Your task to perform on an android device: Clear the shopping cart on ebay. Image 0: 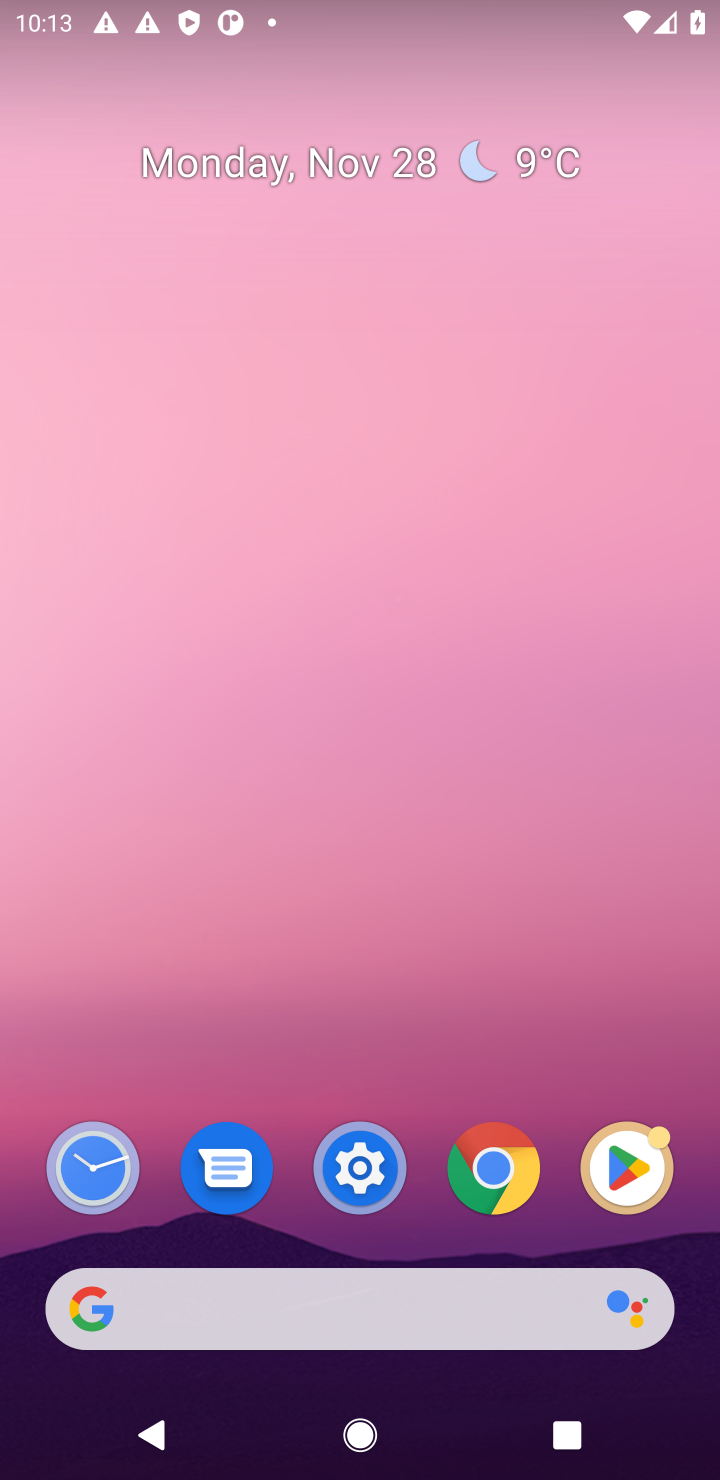
Step 0: click (390, 1319)
Your task to perform on an android device: Clear the shopping cart on ebay. Image 1: 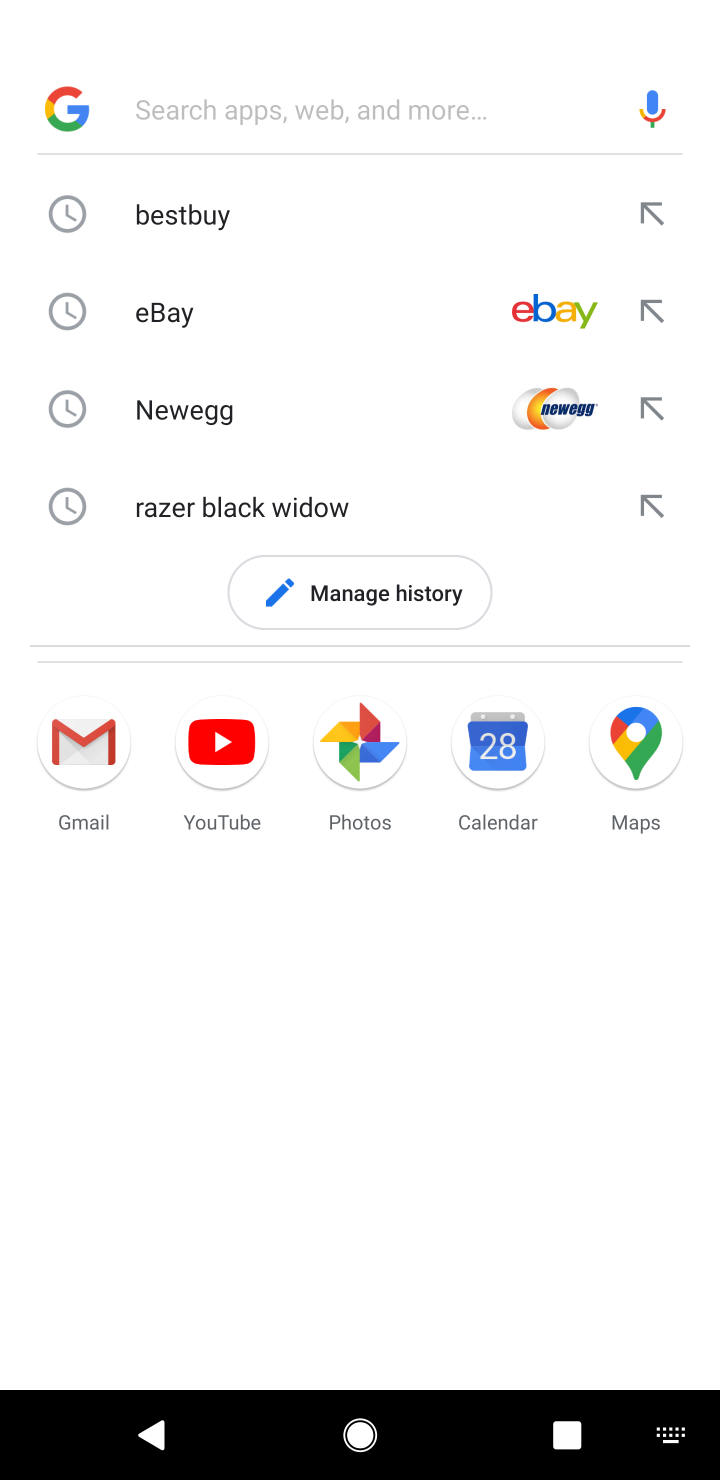
Step 1: type "ebay.com"
Your task to perform on an android device: Clear the shopping cart on ebay. Image 2: 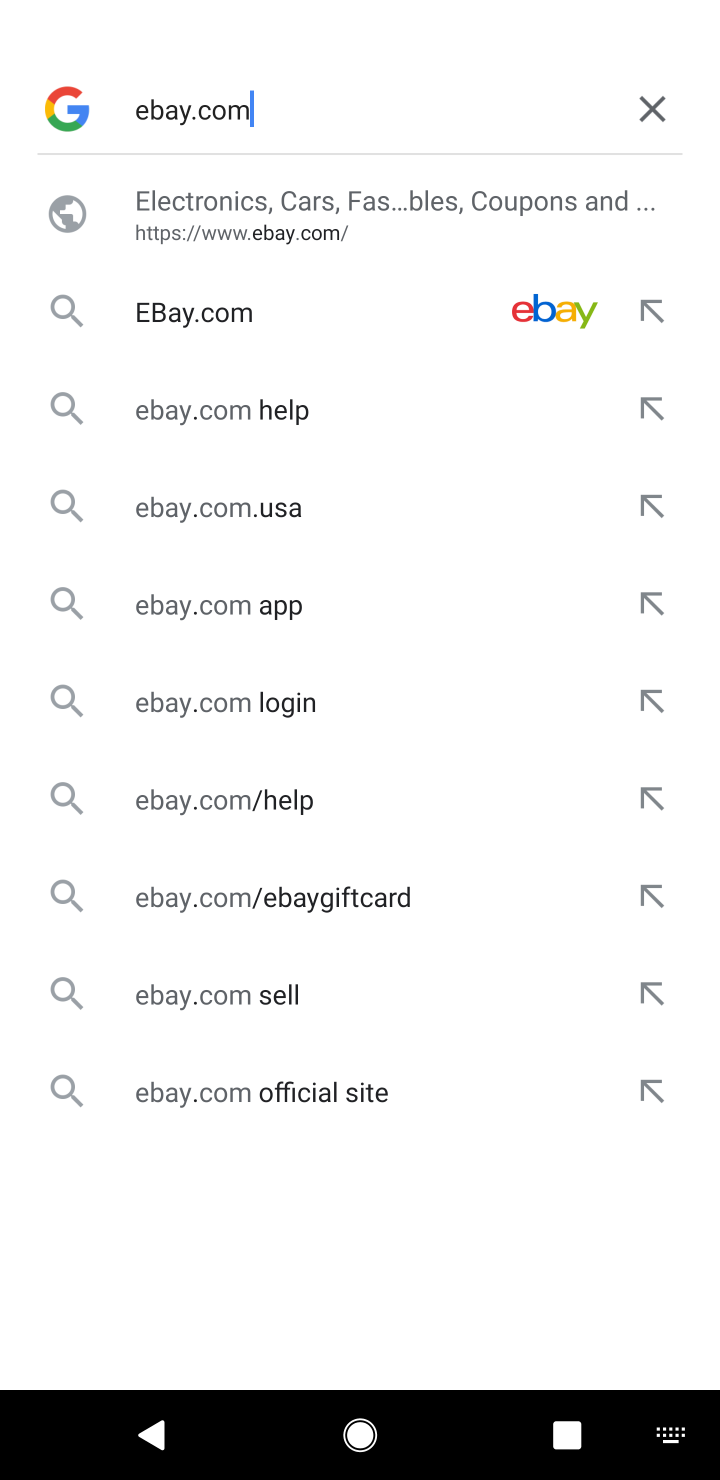
Step 2: click (236, 328)
Your task to perform on an android device: Clear the shopping cart on ebay. Image 3: 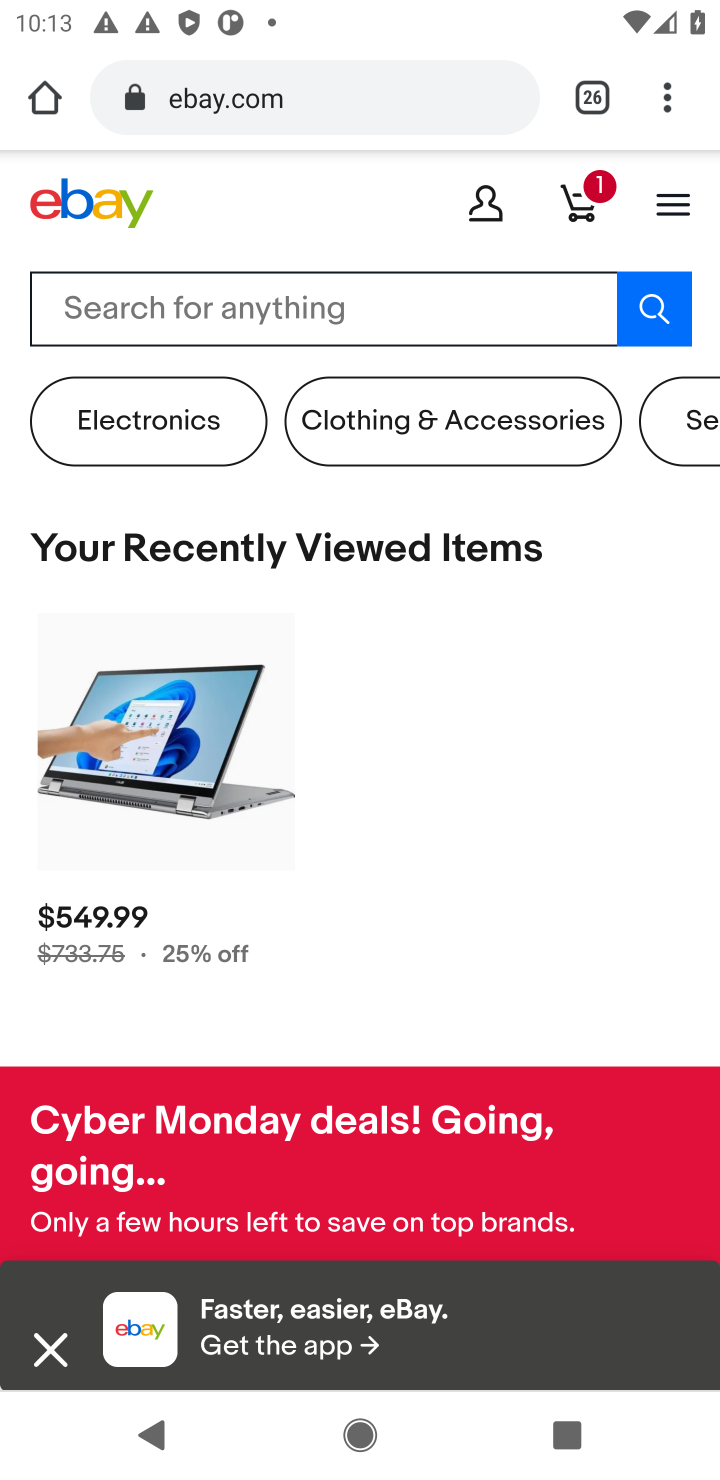
Step 3: task complete